Your task to perform on an android device: open sync settings in chrome Image 0: 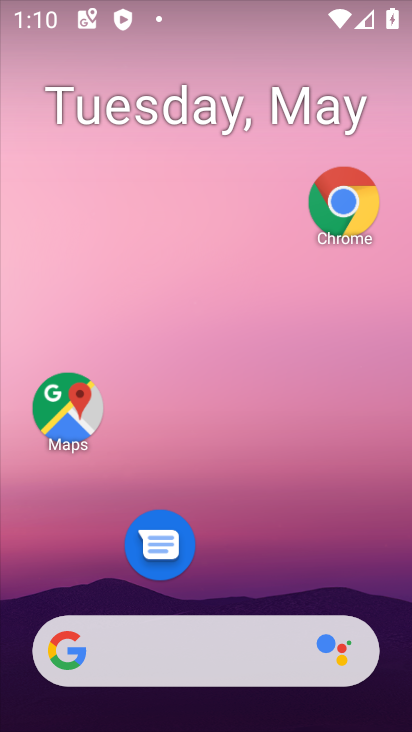
Step 0: click (347, 205)
Your task to perform on an android device: open sync settings in chrome Image 1: 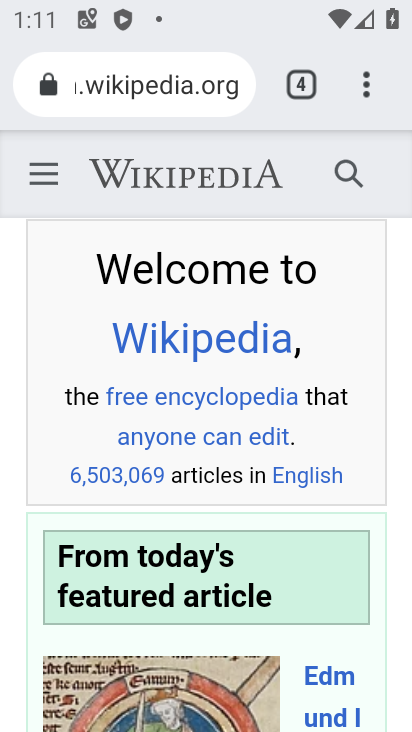
Step 1: click (387, 80)
Your task to perform on an android device: open sync settings in chrome Image 2: 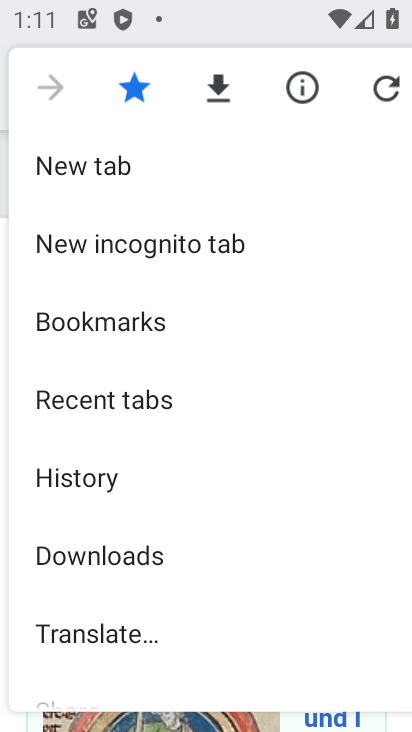
Step 2: drag from (122, 657) to (209, 264)
Your task to perform on an android device: open sync settings in chrome Image 3: 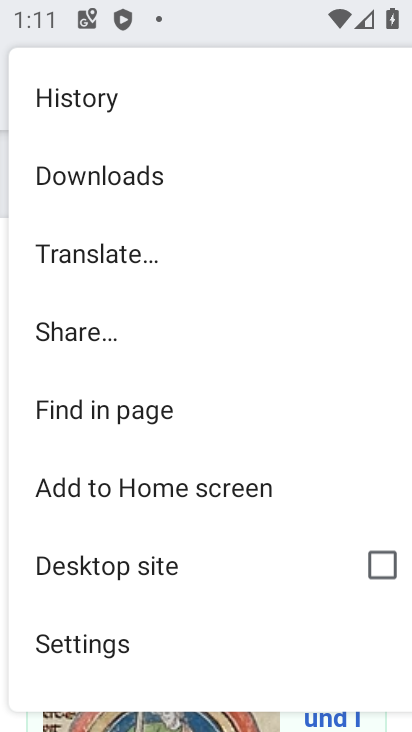
Step 3: drag from (209, 264) to (203, 193)
Your task to perform on an android device: open sync settings in chrome Image 4: 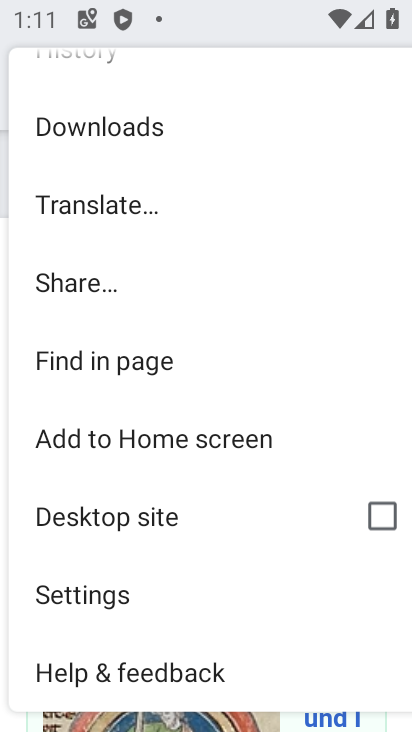
Step 4: click (106, 605)
Your task to perform on an android device: open sync settings in chrome Image 5: 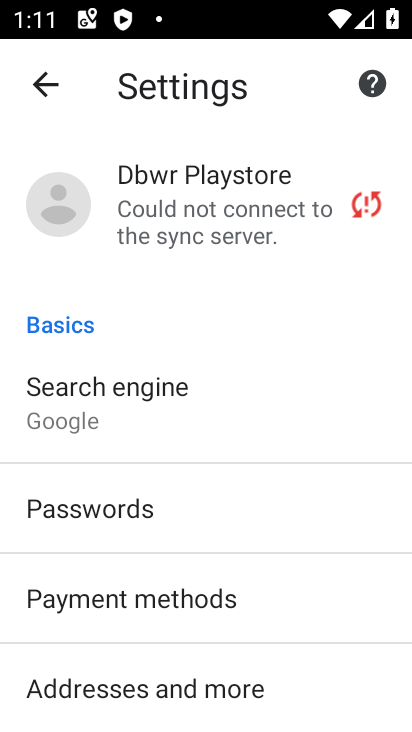
Step 5: click (188, 214)
Your task to perform on an android device: open sync settings in chrome Image 6: 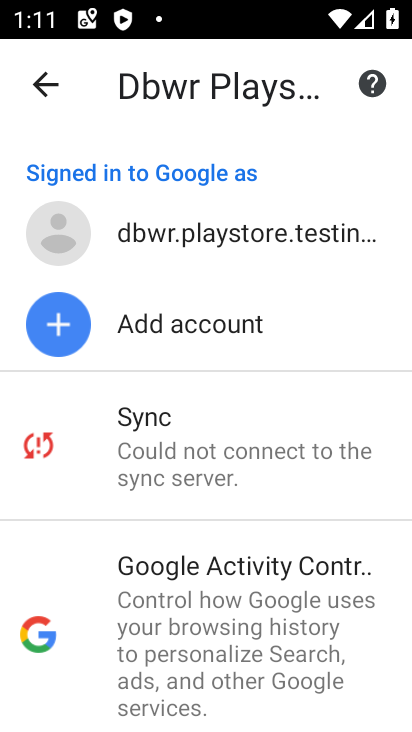
Step 6: click (195, 437)
Your task to perform on an android device: open sync settings in chrome Image 7: 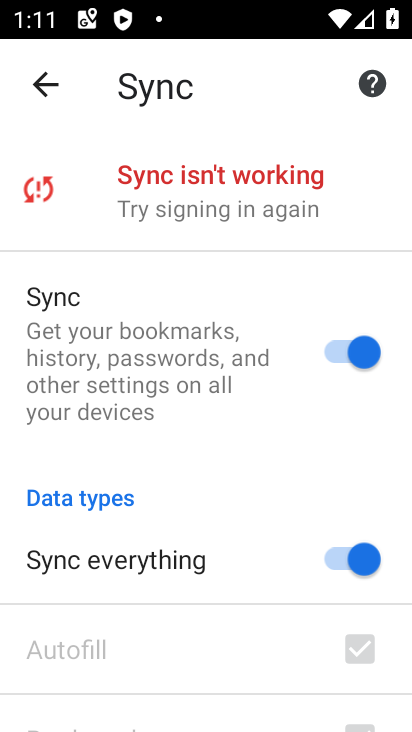
Step 7: task complete